Your task to perform on an android device: turn off wifi Image 0: 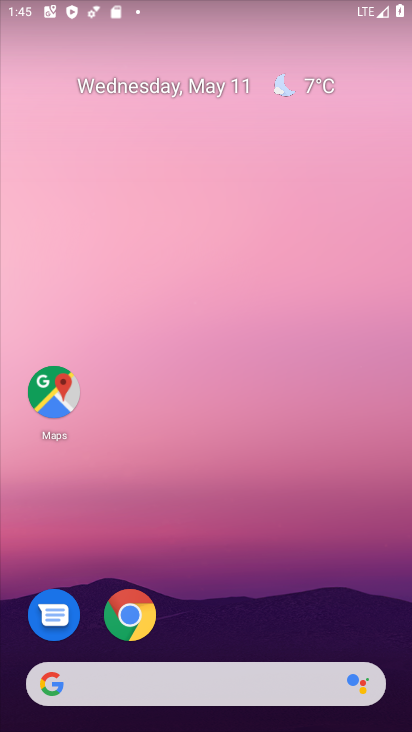
Step 0: drag from (315, 4) to (359, 591)
Your task to perform on an android device: turn off wifi Image 1: 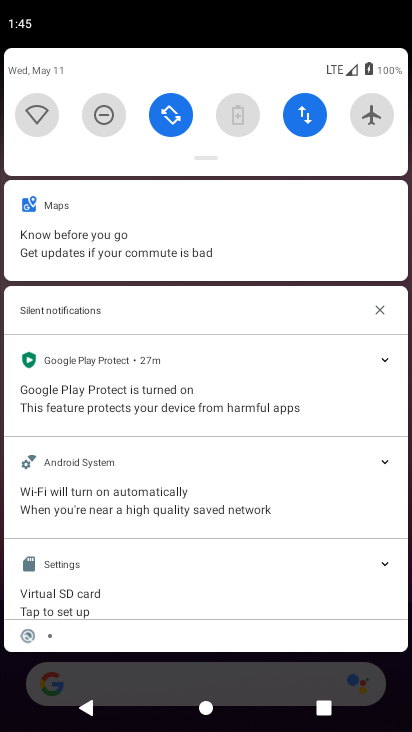
Step 1: click (42, 96)
Your task to perform on an android device: turn off wifi Image 2: 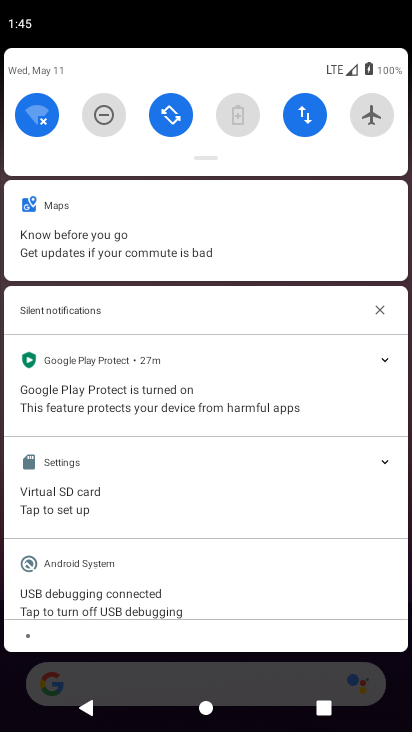
Step 2: drag from (306, 678) to (288, 200)
Your task to perform on an android device: turn off wifi Image 3: 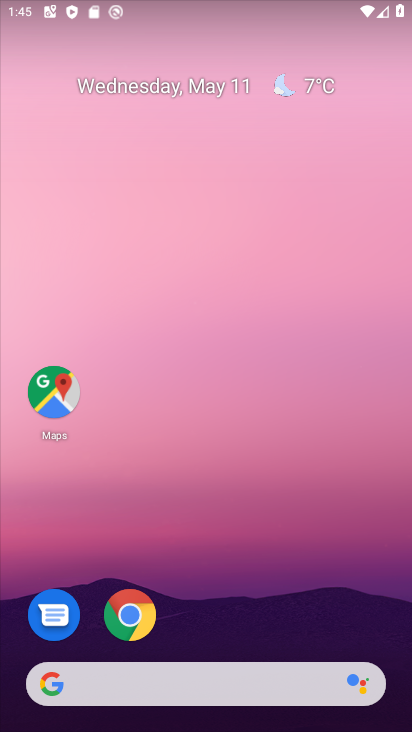
Step 3: drag from (278, 2) to (218, 537)
Your task to perform on an android device: turn off wifi Image 4: 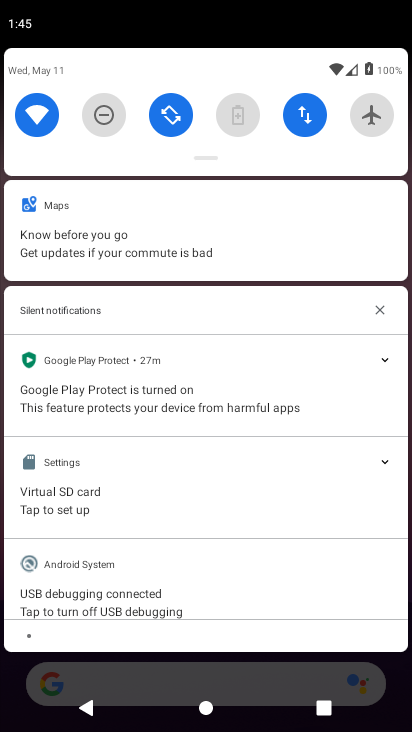
Step 4: click (41, 106)
Your task to perform on an android device: turn off wifi Image 5: 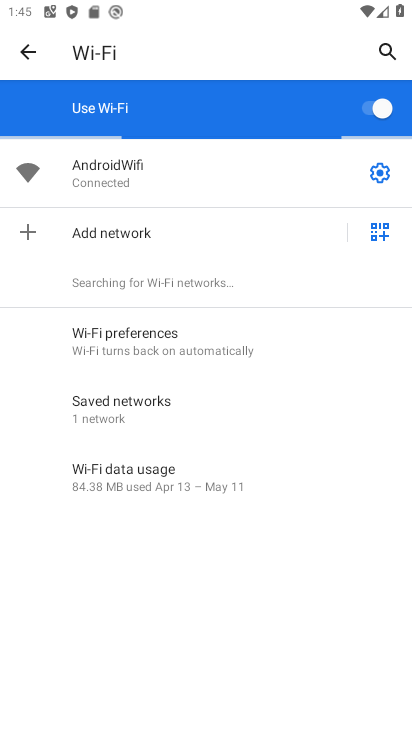
Step 5: click (375, 103)
Your task to perform on an android device: turn off wifi Image 6: 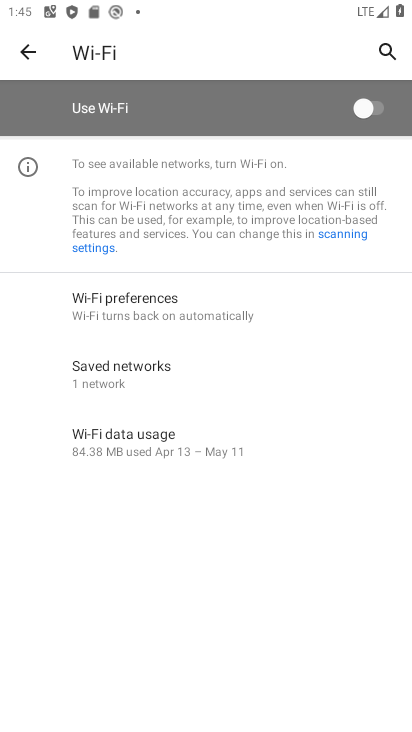
Step 6: task complete